Your task to perform on an android device: Open calendar and show me the second week of next month Image 0: 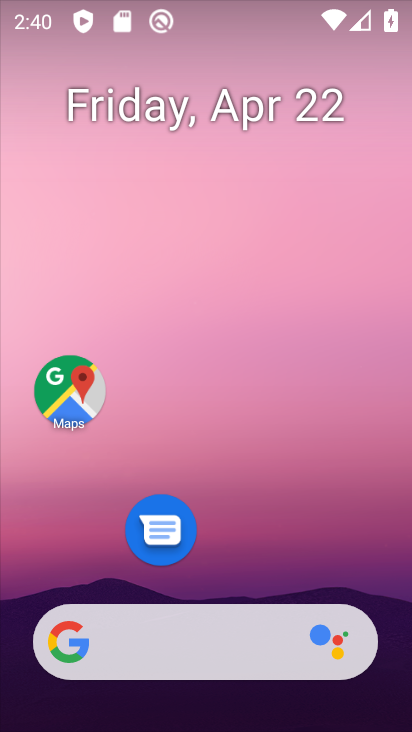
Step 0: drag from (271, 534) to (212, 12)
Your task to perform on an android device: Open calendar and show me the second week of next month Image 1: 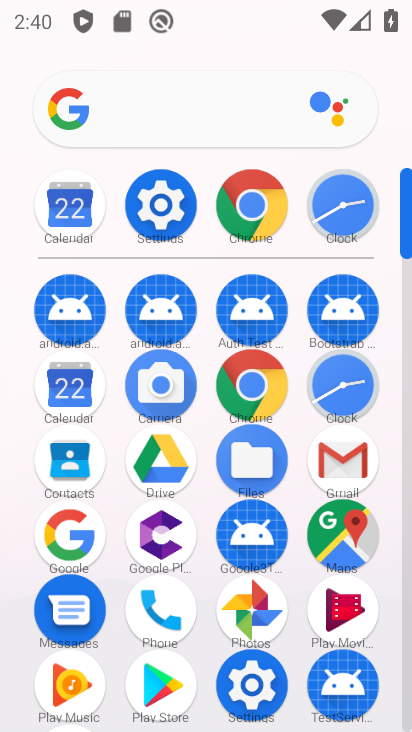
Step 1: click (70, 202)
Your task to perform on an android device: Open calendar and show me the second week of next month Image 2: 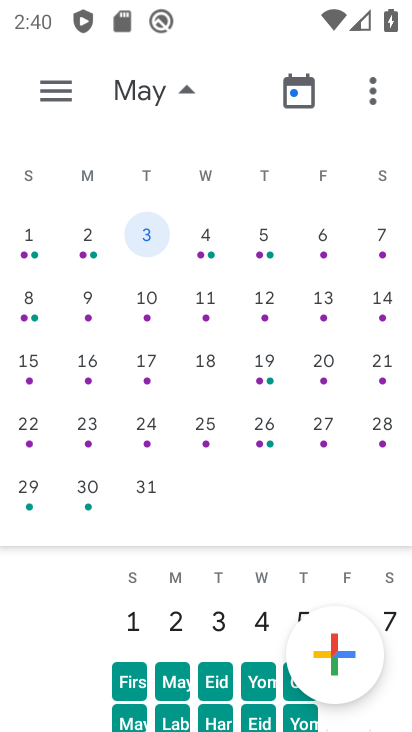
Step 2: click (145, 296)
Your task to perform on an android device: Open calendar and show me the second week of next month Image 3: 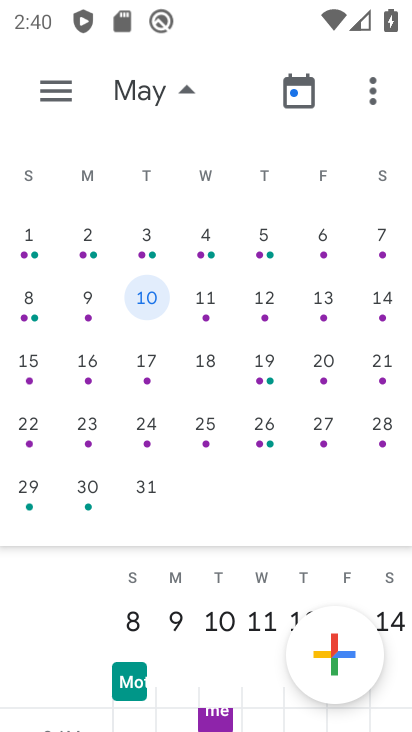
Step 3: task complete